Your task to perform on an android device: stop showing notifications on the lock screen Image 0: 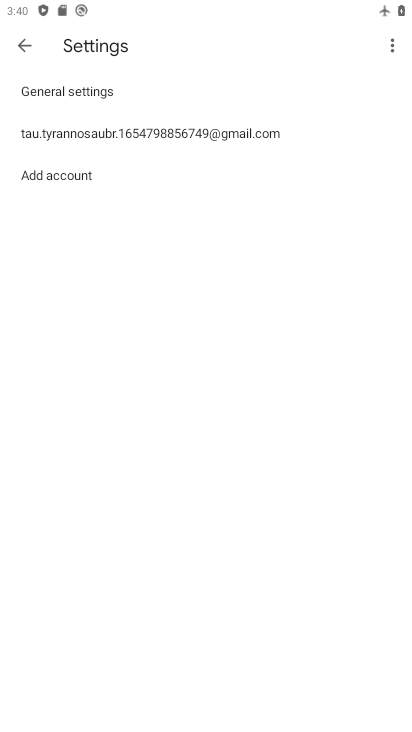
Step 0: press home button
Your task to perform on an android device: stop showing notifications on the lock screen Image 1: 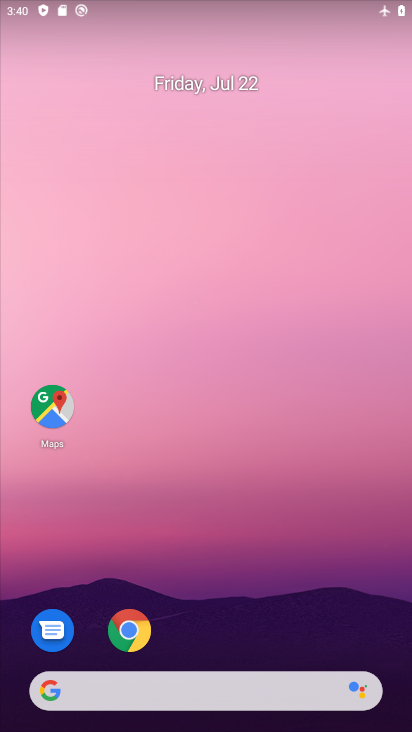
Step 1: drag from (256, 636) to (253, 6)
Your task to perform on an android device: stop showing notifications on the lock screen Image 2: 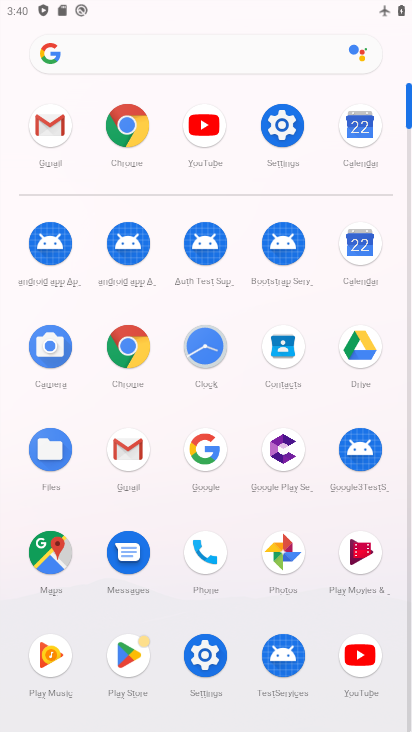
Step 2: click (203, 654)
Your task to perform on an android device: stop showing notifications on the lock screen Image 3: 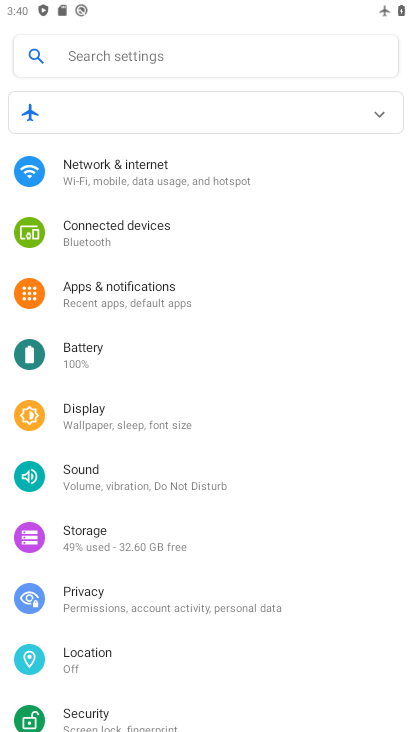
Step 3: click (149, 296)
Your task to perform on an android device: stop showing notifications on the lock screen Image 4: 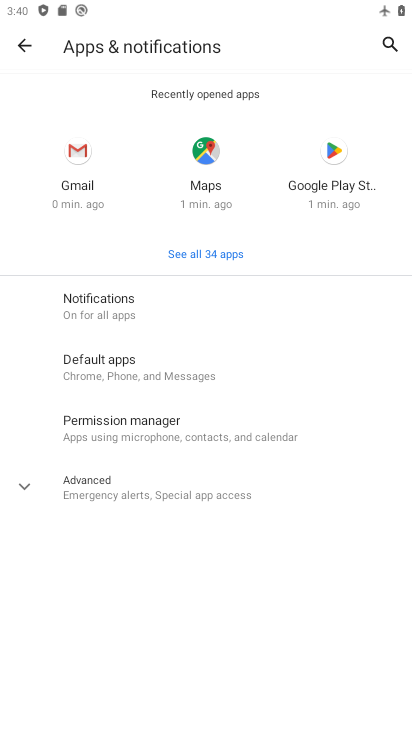
Step 4: click (131, 316)
Your task to perform on an android device: stop showing notifications on the lock screen Image 5: 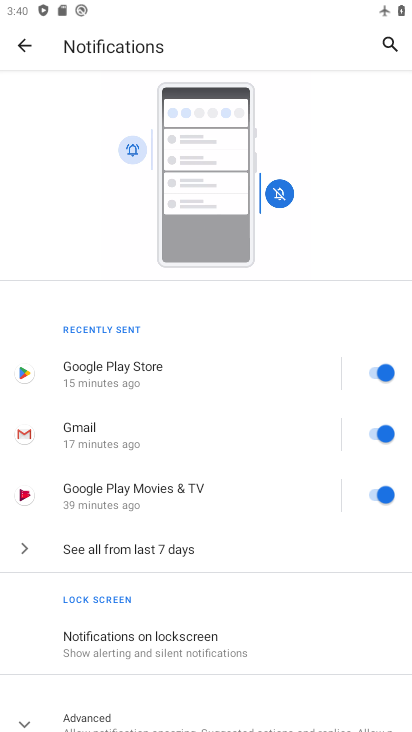
Step 5: click (122, 637)
Your task to perform on an android device: stop showing notifications on the lock screen Image 6: 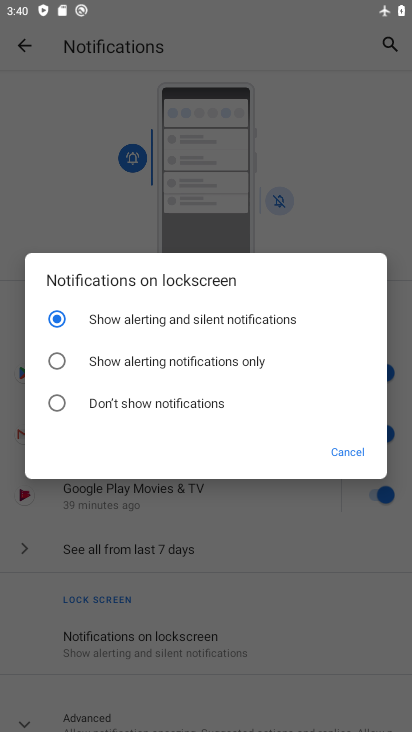
Step 6: click (85, 399)
Your task to perform on an android device: stop showing notifications on the lock screen Image 7: 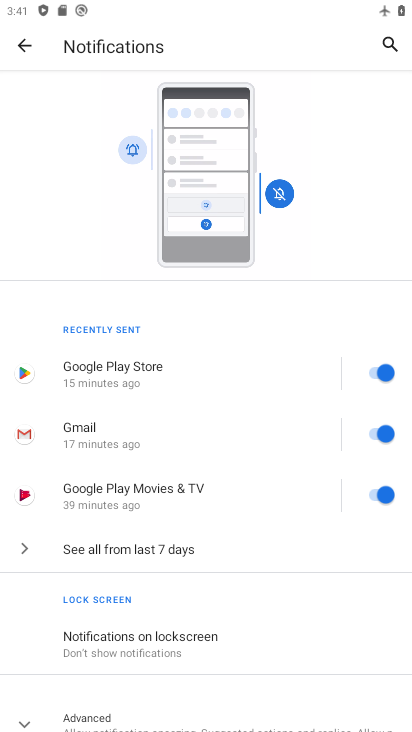
Step 7: task complete